Your task to perform on an android device: check storage Image 0: 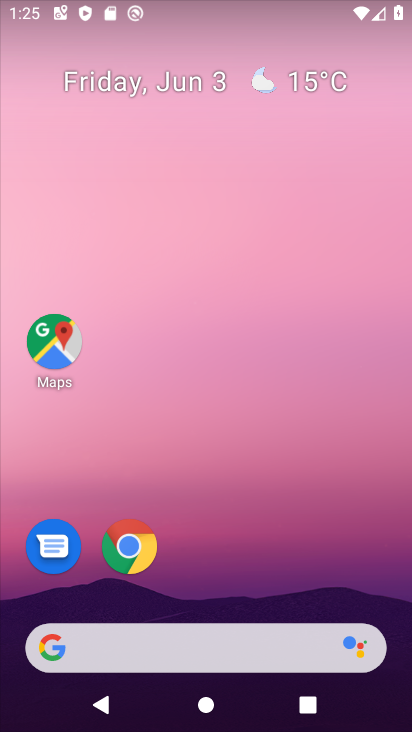
Step 0: drag from (239, 599) to (226, 3)
Your task to perform on an android device: check storage Image 1: 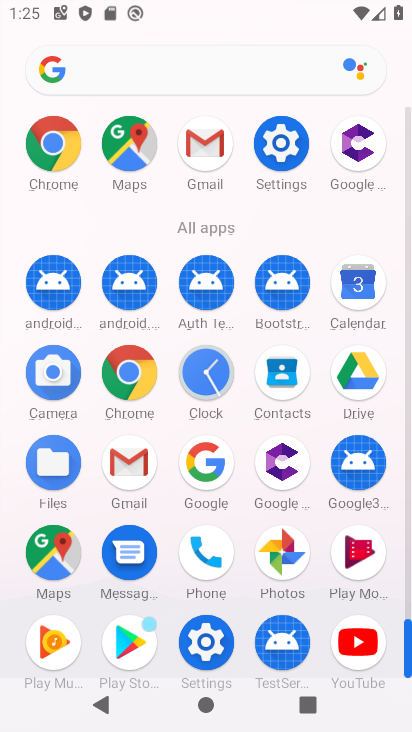
Step 1: click (280, 124)
Your task to perform on an android device: check storage Image 2: 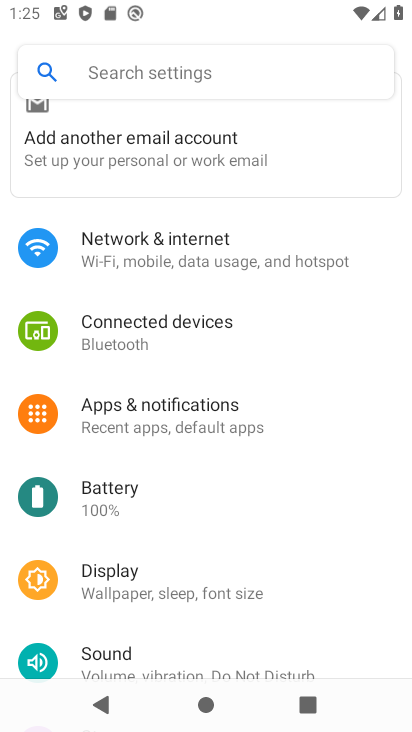
Step 2: drag from (175, 665) to (169, 144)
Your task to perform on an android device: check storage Image 3: 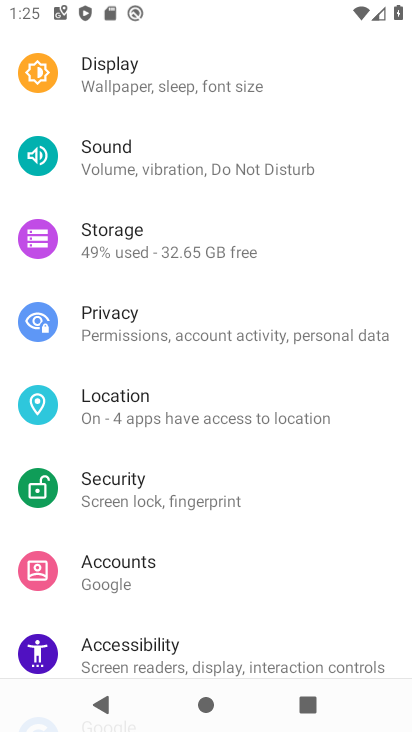
Step 3: click (204, 247)
Your task to perform on an android device: check storage Image 4: 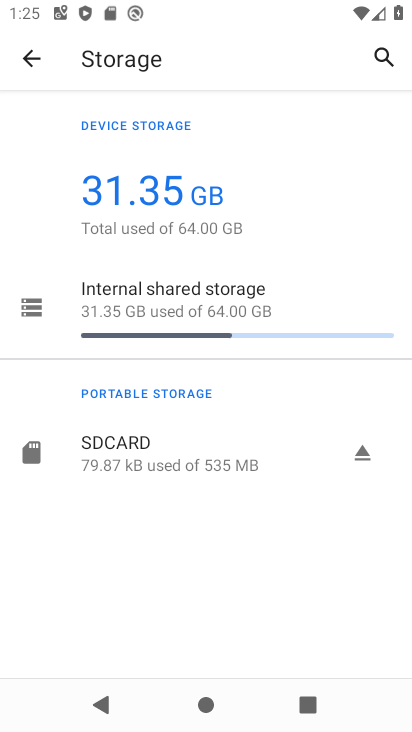
Step 4: click (185, 314)
Your task to perform on an android device: check storage Image 5: 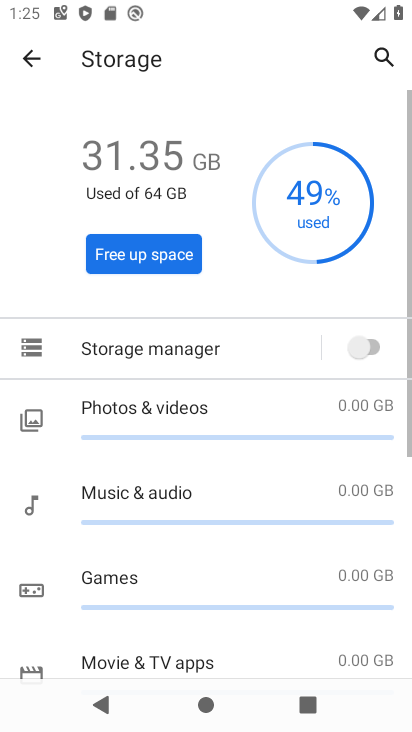
Step 5: task complete